Your task to perform on an android device: check android version Image 0: 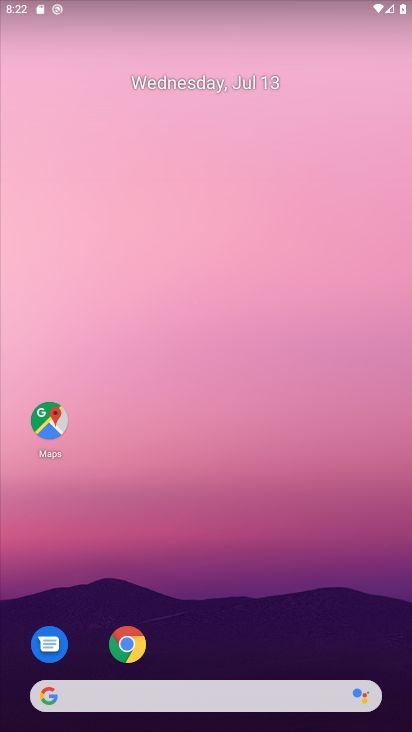
Step 0: drag from (249, 608) to (352, 0)
Your task to perform on an android device: check android version Image 1: 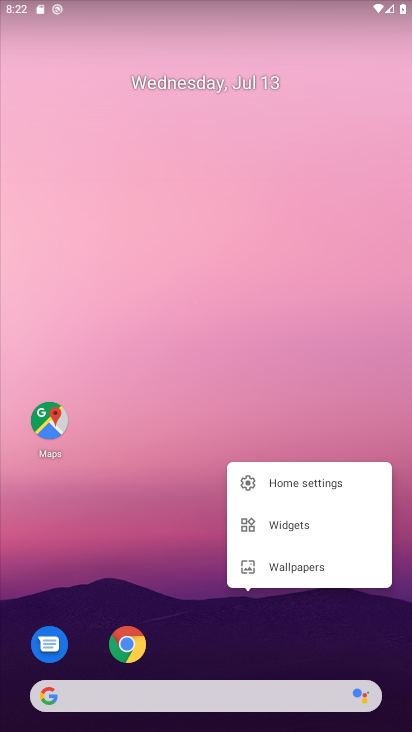
Step 1: click (254, 346)
Your task to perform on an android device: check android version Image 2: 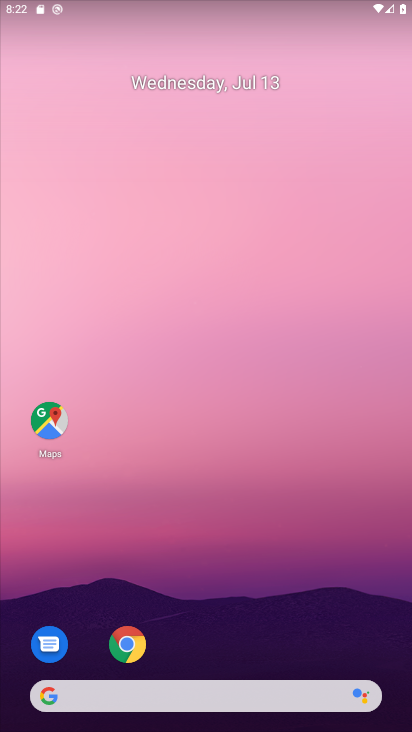
Step 2: drag from (207, 636) to (277, 6)
Your task to perform on an android device: check android version Image 3: 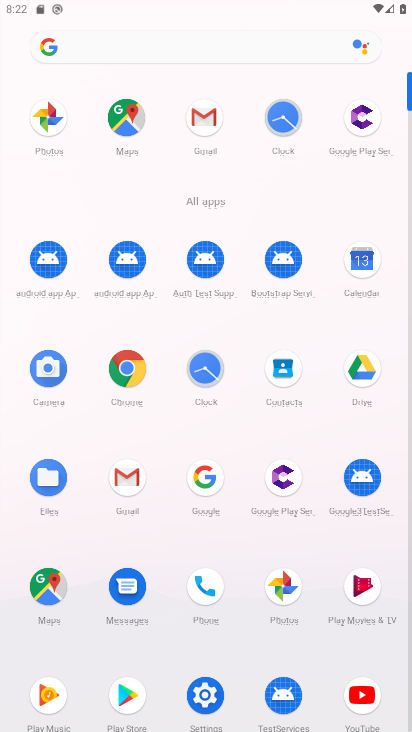
Step 3: click (204, 688)
Your task to perform on an android device: check android version Image 4: 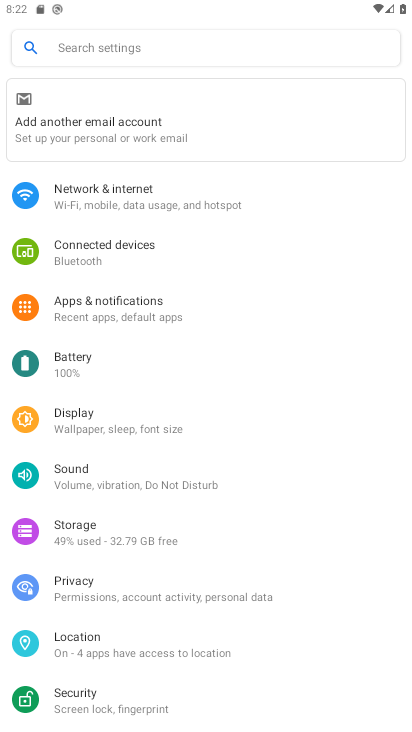
Step 4: drag from (204, 688) to (335, 164)
Your task to perform on an android device: check android version Image 5: 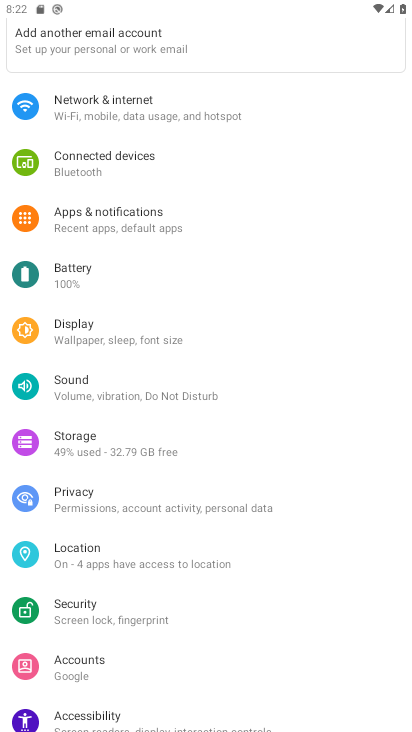
Step 5: drag from (152, 608) to (205, 204)
Your task to perform on an android device: check android version Image 6: 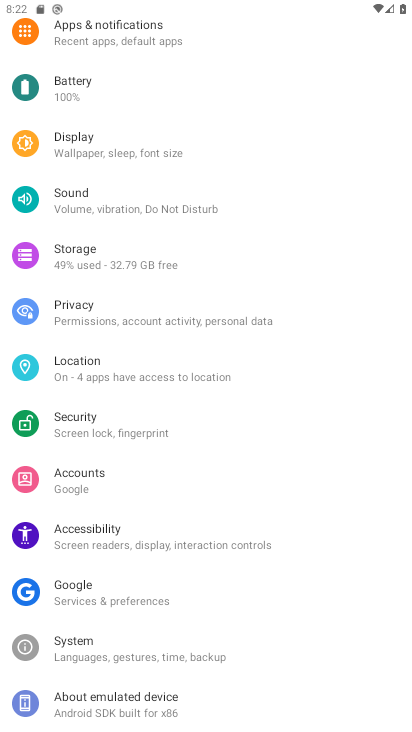
Step 6: click (122, 718)
Your task to perform on an android device: check android version Image 7: 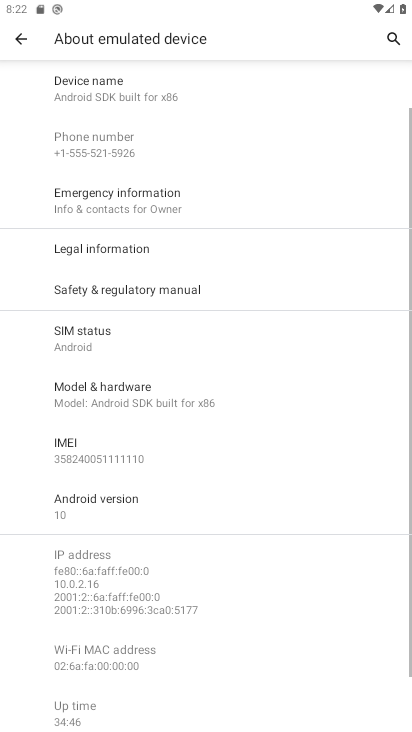
Step 7: click (121, 502)
Your task to perform on an android device: check android version Image 8: 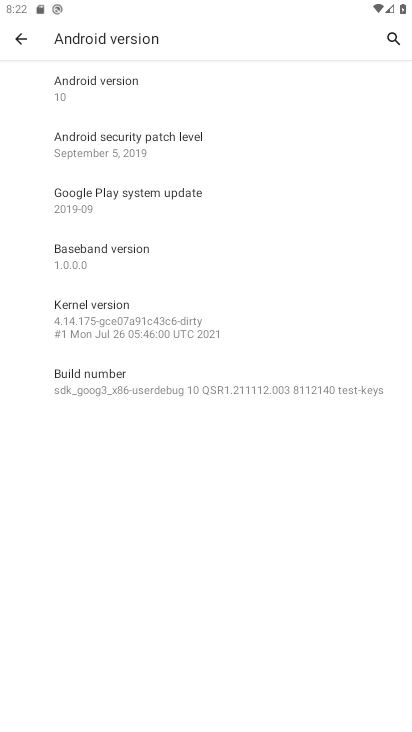
Step 8: click (151, 97)
Your task to perform on an android device: check android version Image 9: 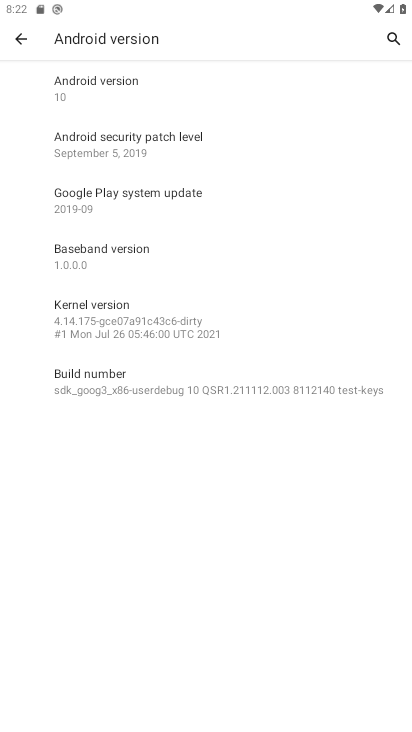
Step 9: task complete